Your task to perform on an android device: toggle improve location accuracy Image 0: 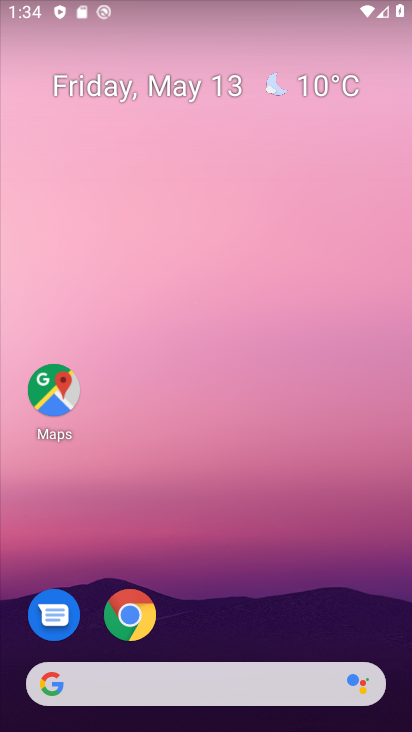
Step 0: drag from (216, 598) to (85, 216)
Your task to perform on an android device: toggle improve location accuracy Image 1: 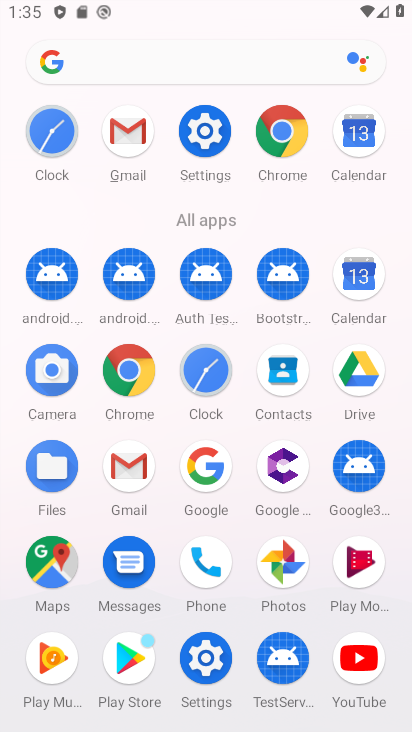
Step 1: click (201, 134)
Your task to perform on an android device: toggle improve location accuracy Image 2: 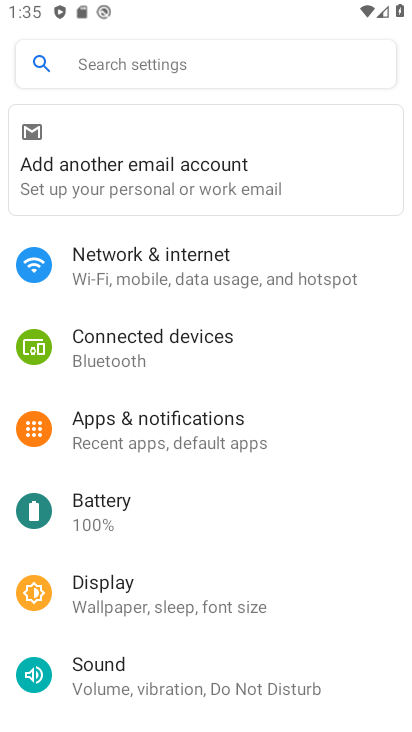
Step 2: drag from (169, 674) to (133, 292)
Your task to perform on an android device: toggle improve location accuracy Image 3: 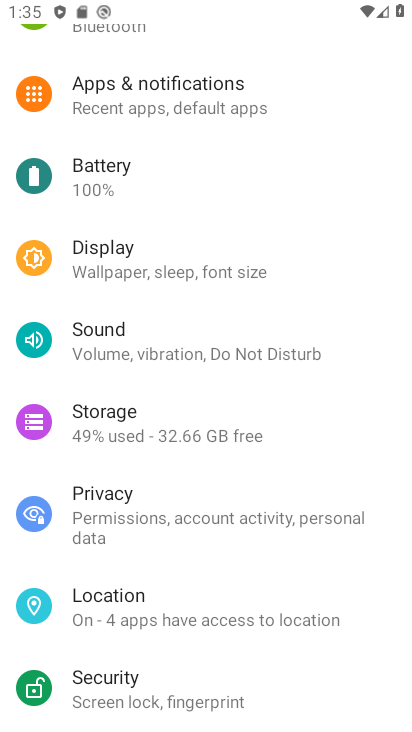
Step 3: click (139, 617)
Your task to perform on an android device: toggle improve location accuracy Image 4: 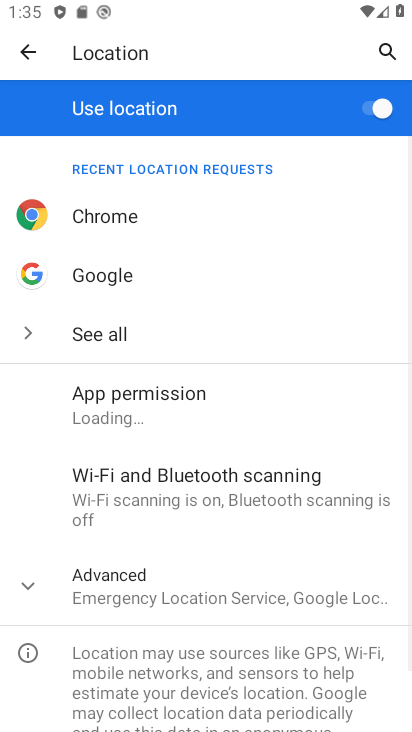
Step 4: click (125, 595)
Your task to perform on an android device: toggle improve location accuracy Image 5: 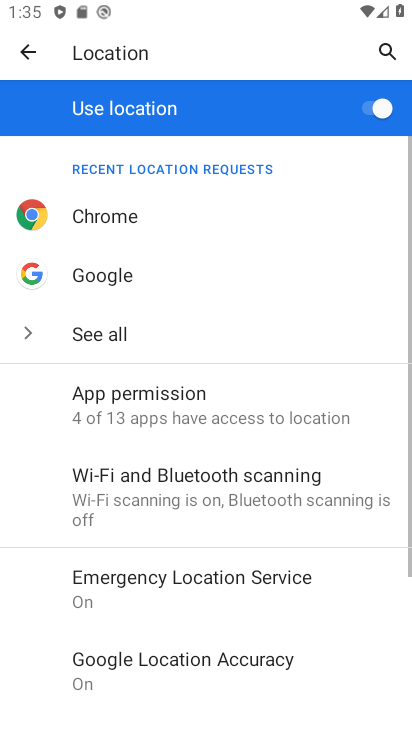
Step 5: drag from (125, 595) to (125, 458)
Your task to perform on an android device: toggle improve location accuracy Image 6: 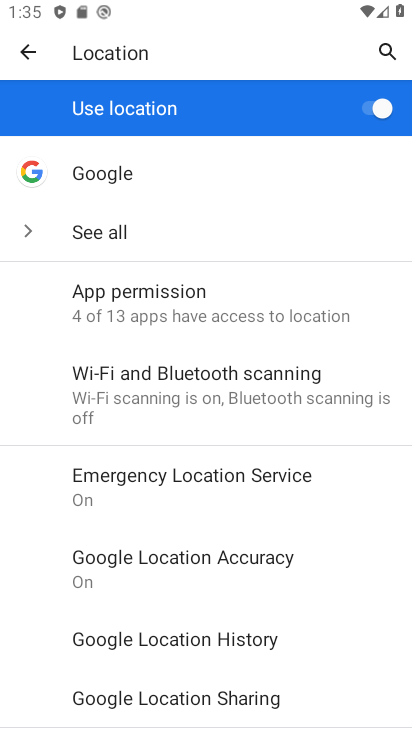
Step 6: click (119, 565)
Your task to perform on an android device: toggle improve location accuracy Image 7: 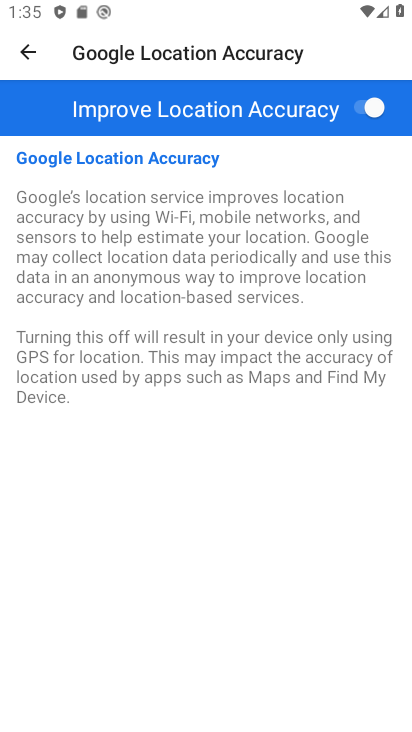
Step 7: click (366, 105)
Your task to perform on an android device: toggle improve location accuracy Image 8: 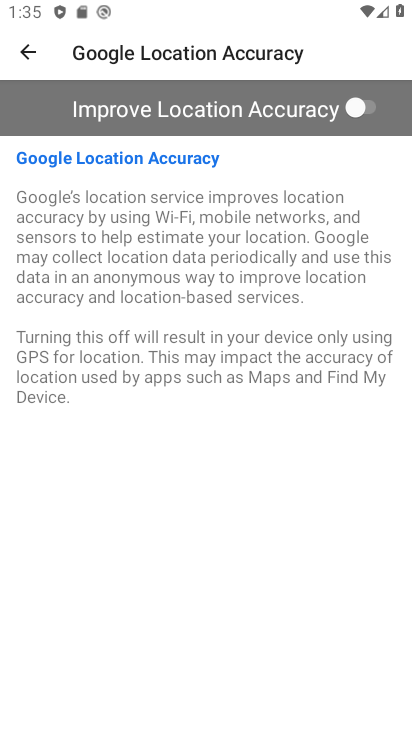
Step 8: task complete